Your task to perform on an android device: Open Chrome and go to settings Image 0: 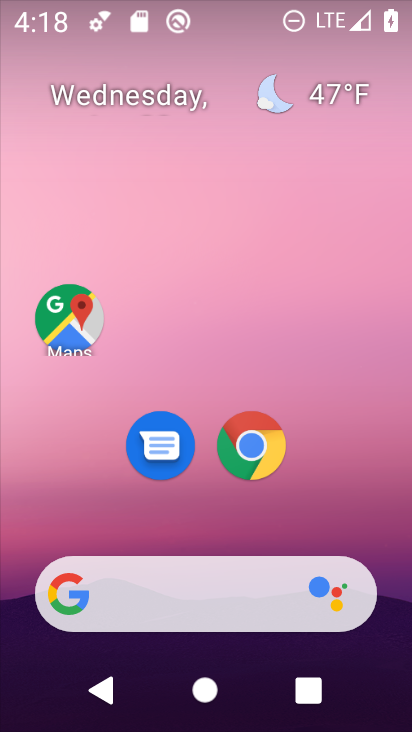
Step 0: click (254, 445)
Your task to perform on an android device: Open Chrome and go to settings Image 1: 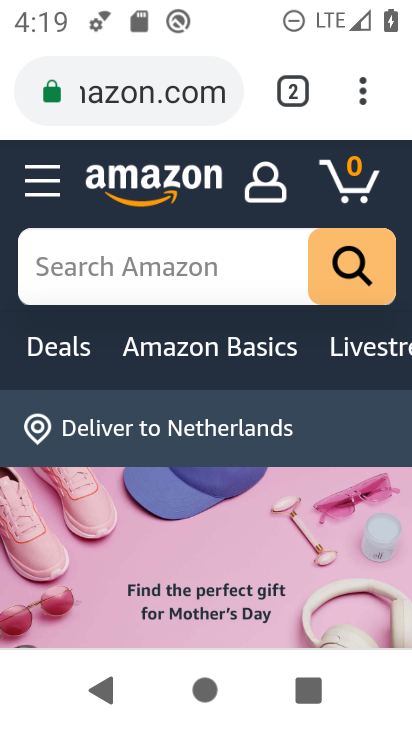
Step 1: click (363, 95)
Your task to perform on an android device: Open Chrome and go to settings Image 2: 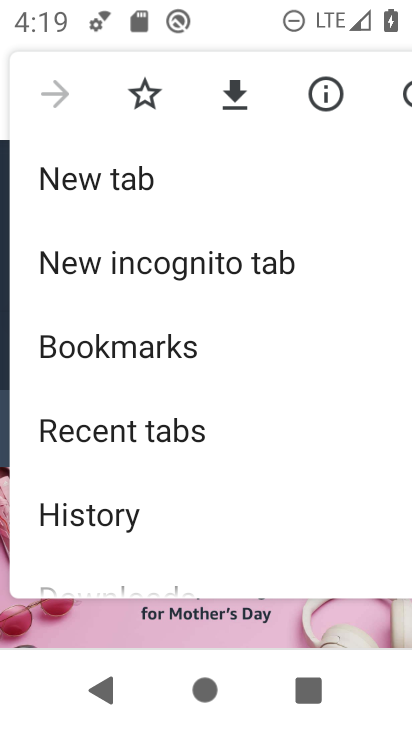
Step 2: drag from (199, 481) to (223, 333)
Your task to perform on an android device: Open Chrome and go to settings Image 3: 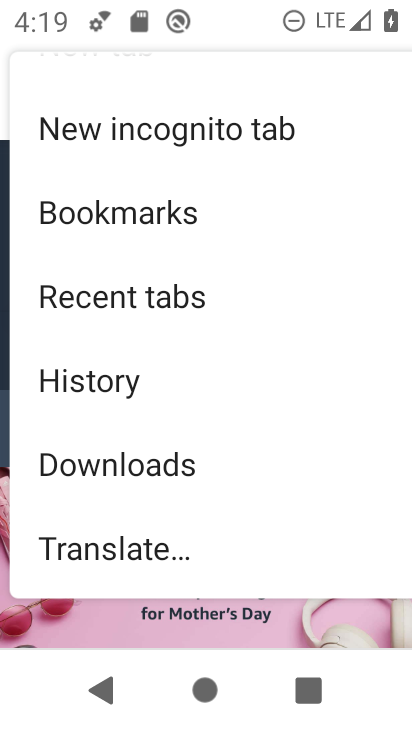
Step 3: drag from (186, 431) to (201, 330)
Your task to perform on an android device: Open Chrome and go to settings Image 4: 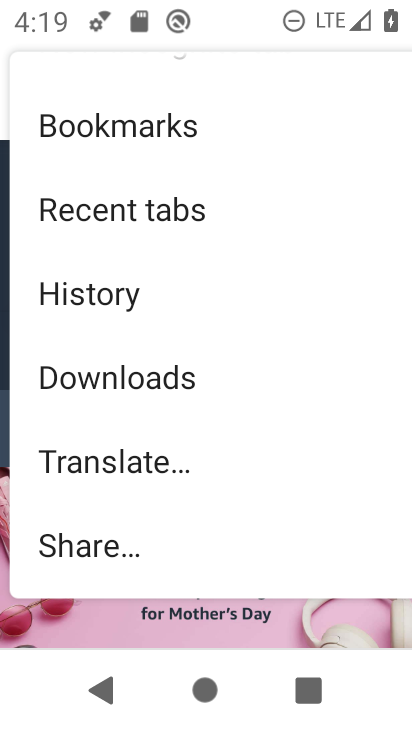
Step 4: drag from (201, 447) to (235, 365)
Your task to perform on an android device: Open Chrome and go to settings Image 5: 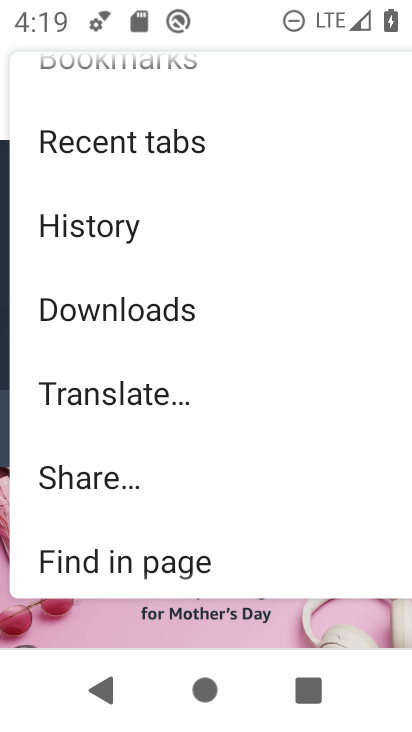
Step 5: drag from (192, 453) to (234, 361)
Your task to perform on an android device: Open Chrome and go to settings Image 6: 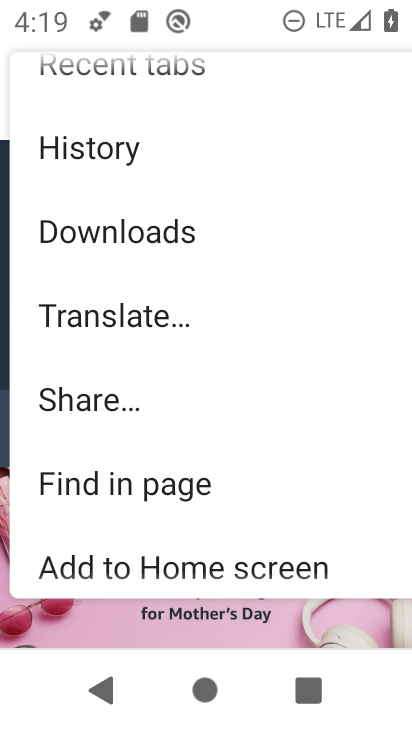
Step 6: drag from (203, 509) to (241, 390)
Your task to perform on an android device: Open Chrome and go to settings Image 7: 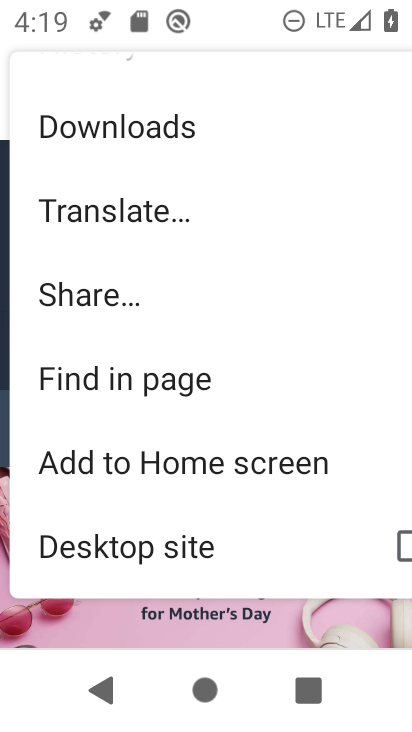
Step 7: drag from (181, 508) to (227, 395)
Your task to perform on an android device: Open Chrome and go to settings Image 8: 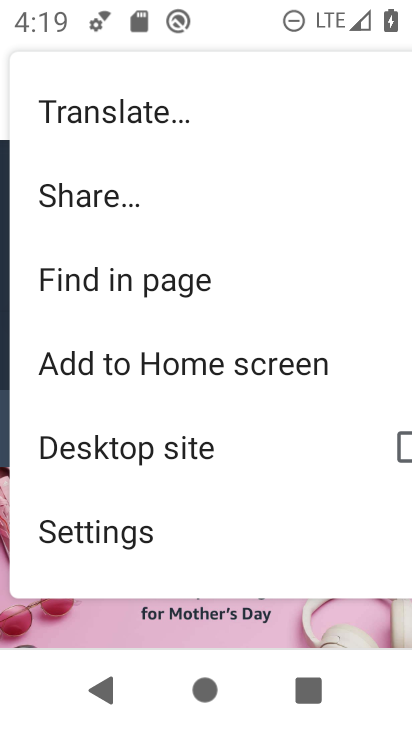
Step 8: drag from (155, 511) to (245, 360)
Your task to perform on an android device: Open Chrome and go to settings Image 9: 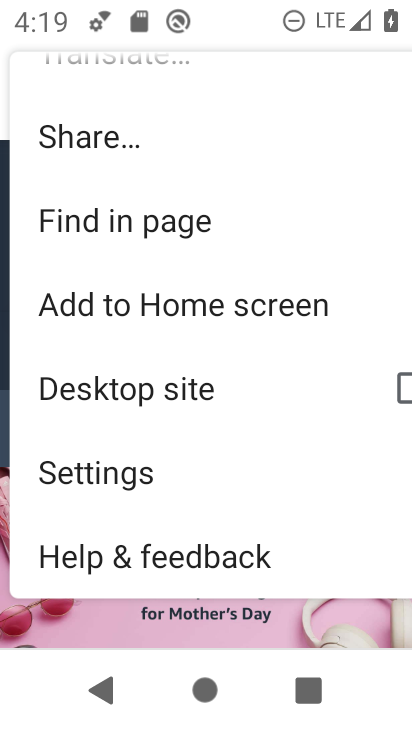
Step 9: click (146, 484)
Your task to perform on an android device: Open Chrome and go to settings Image 10: 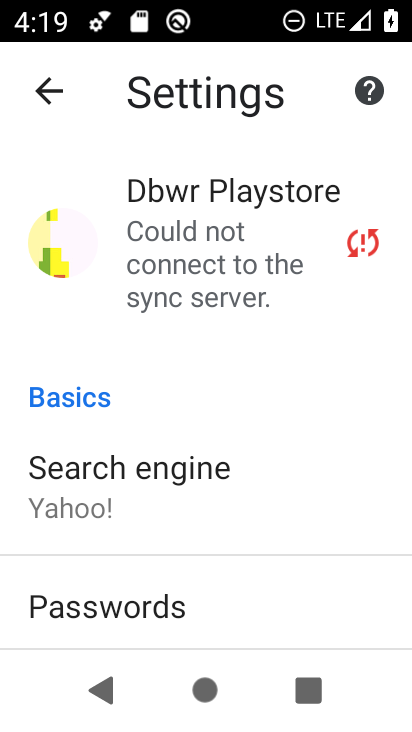
Step 10: task complete